Your task to perform on an android device: check battery use Image 0: 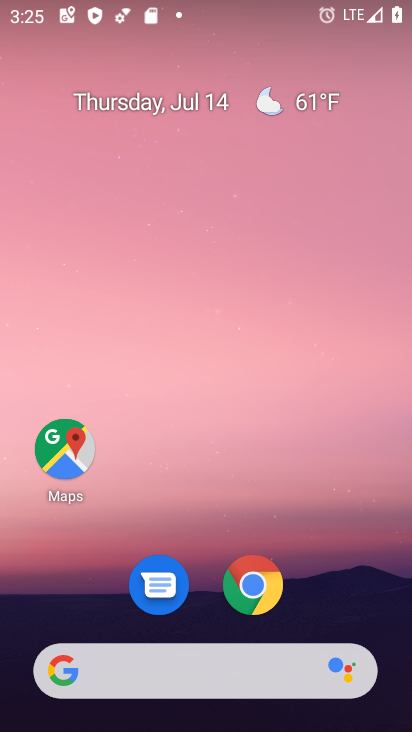
Step 0: drag from (320, 591) to (353, 24)
Your task to perform on an android device: check battery use Image 1: 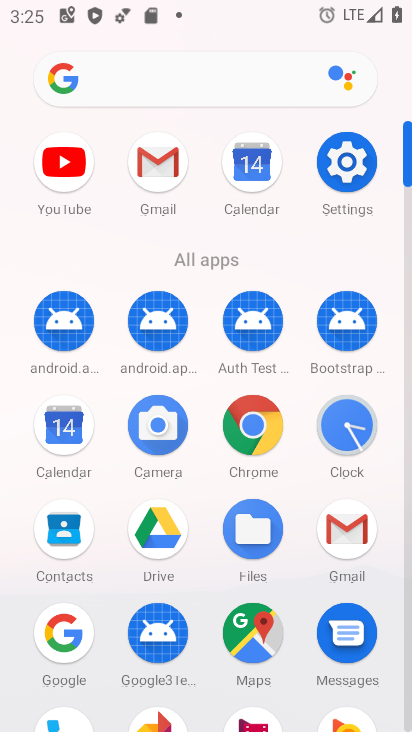
Step 1: click (339, 158)
Your task to perform on an android device: check battery use Image 2: 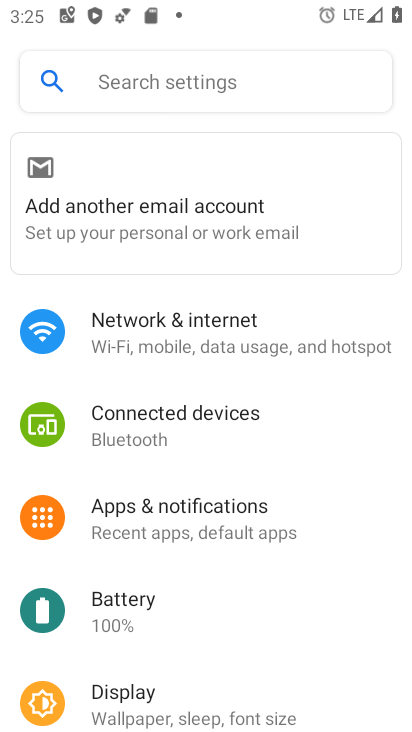
Step 2: click (112, 613)
Your task to perform on an android device: check battery use Image 3: 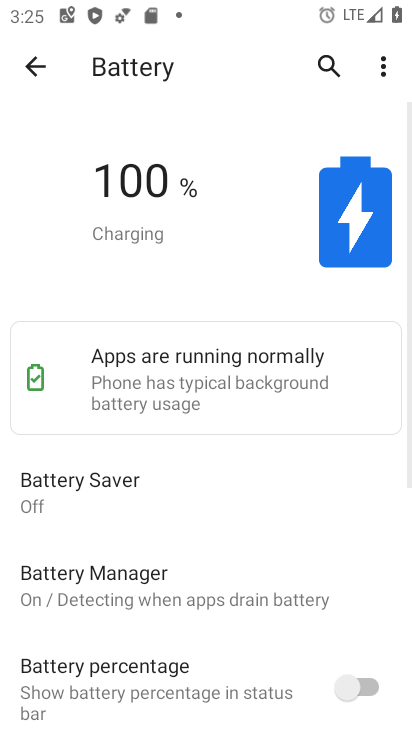
Step 3: click (380, 60)
Your task to perform on an android device: check battery use Image 4: 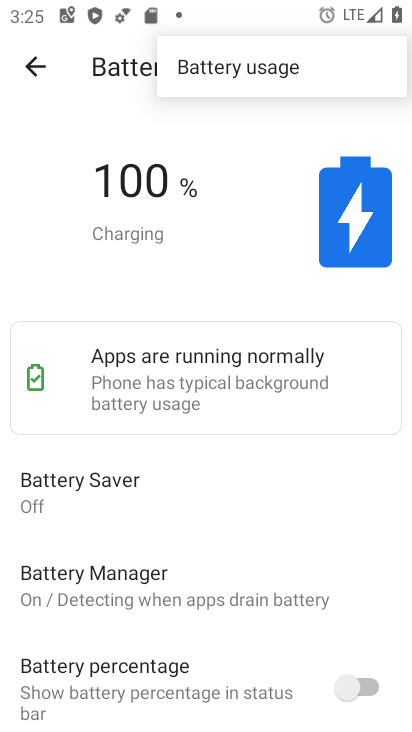
Step 4: click (262, 69)
Your task to perform on an android device: check battery use Image 5: 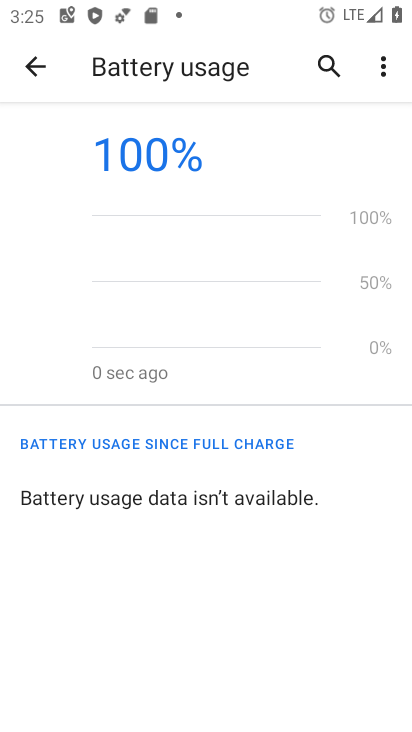
Step 5: task complete